Your task to perform on an android device: Go to sound settings Image 0: 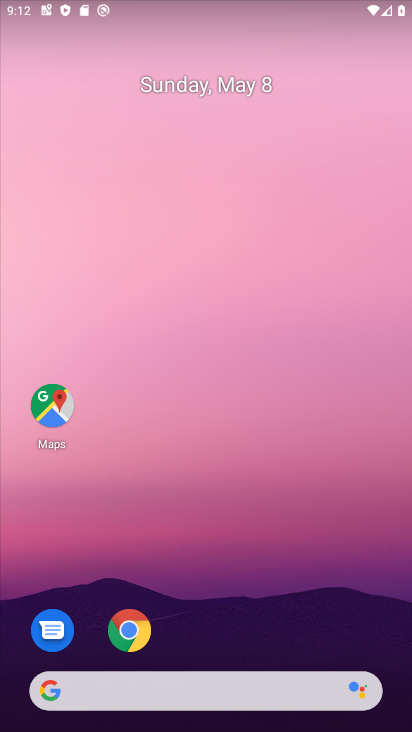
Step 0: drag from (153, 676) to (311, 150)
Your task to perform on an android device: Go to sound settings Image 1: 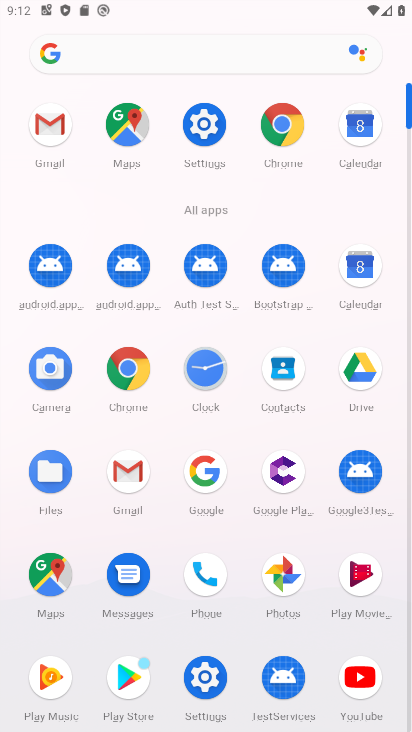
Step 1: click (207, 128)
Your task to perform on an android device: Go to sound settings Image 2: 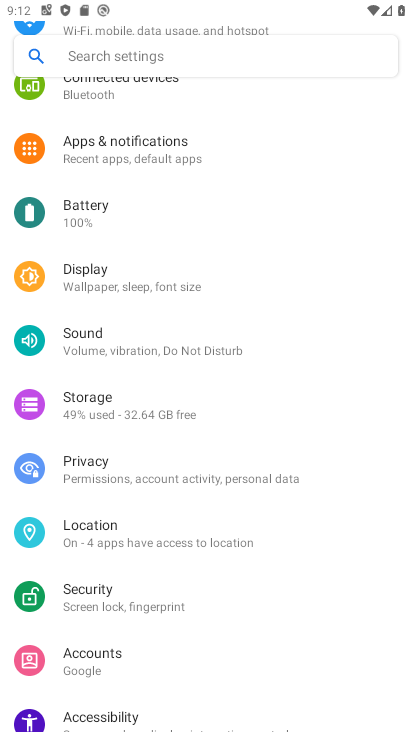
Step 2: click (139, 342)
Your task to perform on an android device: Go to sound settings Image 3: 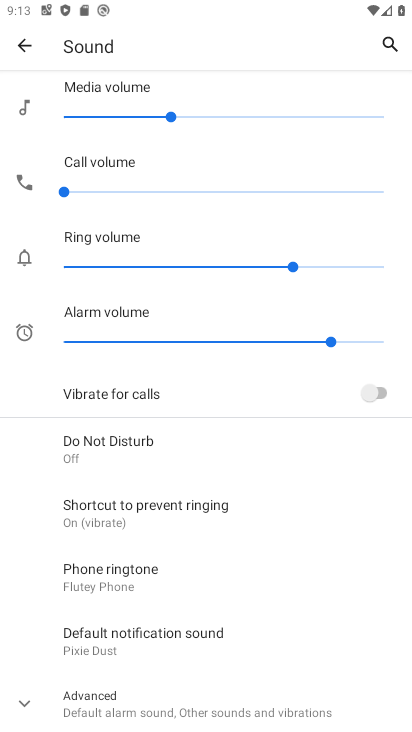
Step 3: task complete